Your task to perform on an android device: Open the web browser Image 0: 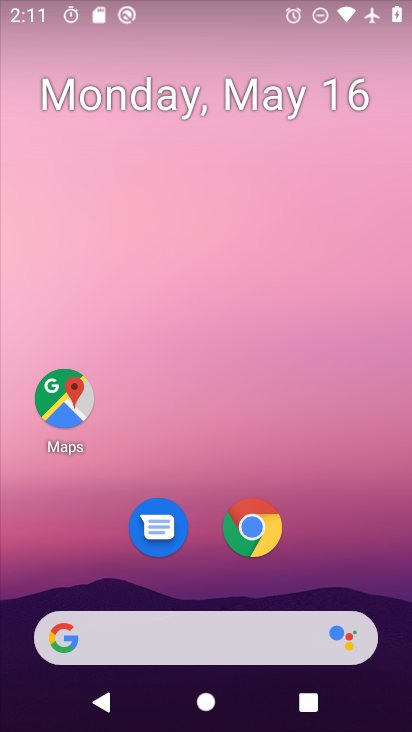
Step 0: click (251, 523)
Your task to perform on an android device: Open the web browser Image 1: 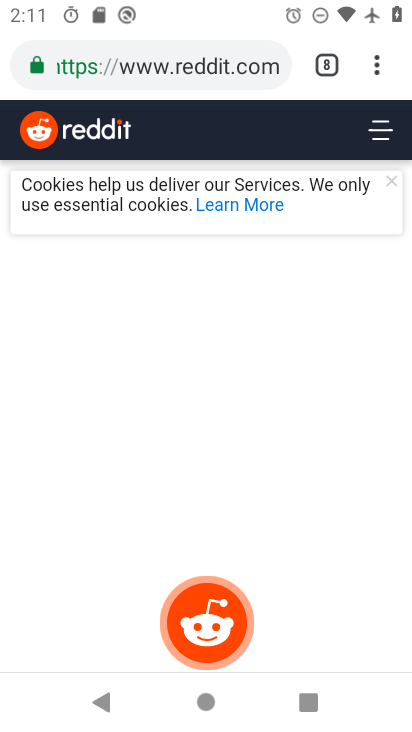
Step 1: task complete